Your task to perform on an android device: search for starred emails in the gmail app Image 0: 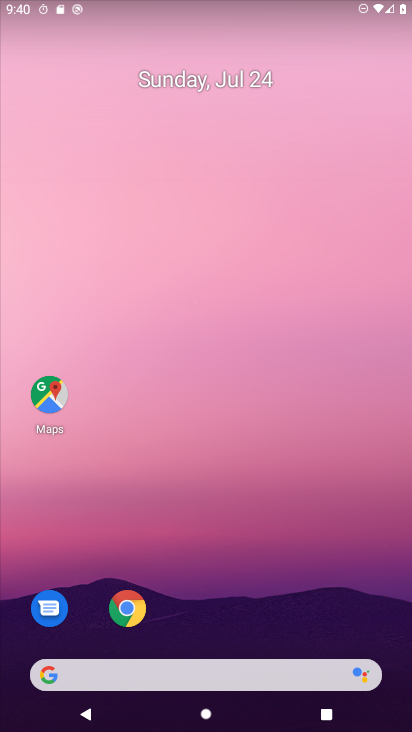
Step 0: click (193, 58)
Your task to perform on an android device: search for starred emails in the gmail app Image 1: 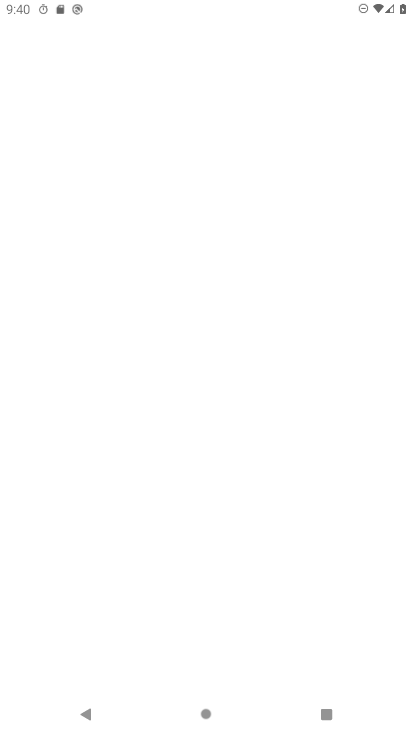
Step 1: press home button
Your task to perform on an android device: search for starred emails in the gmail app Image 2: 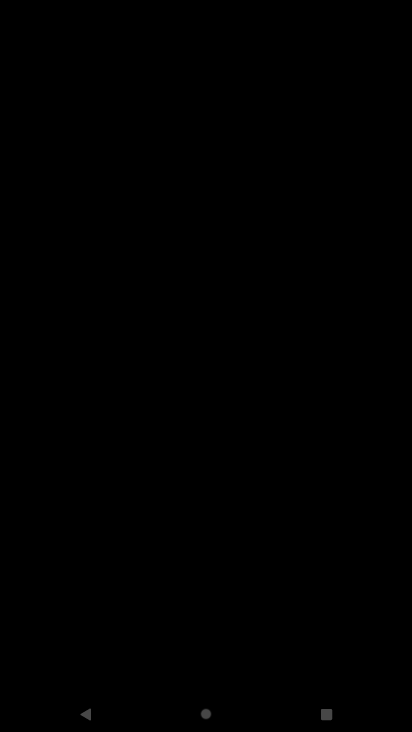
Step 2: press home button
Your task to perform on an android device: search for starred emails in the gmail app Image 3: 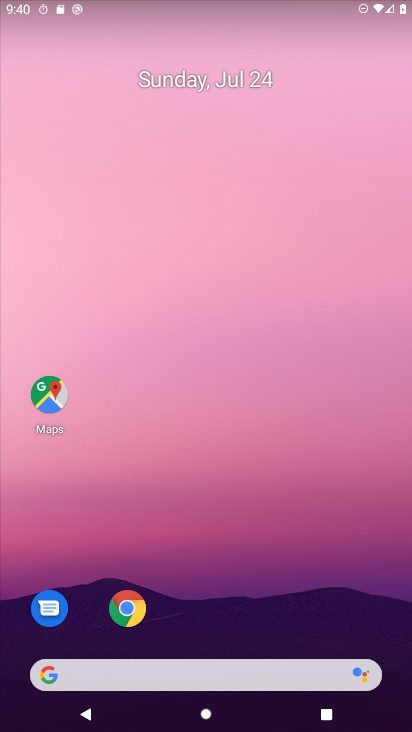
Step 3: drag from (193, 661) to (257, 34)
Your task to perform on an android device: search for starred emails in the gmail app Image 4: 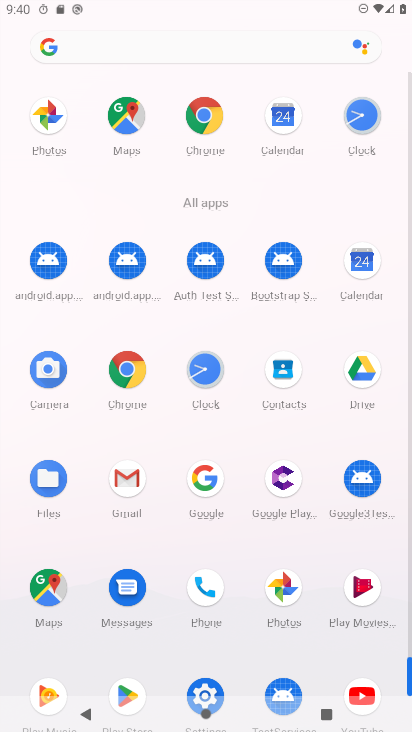
Step 4: click (123, 478)
Your task to perform on an android device: search for starred emails in the gmail app Image 5: 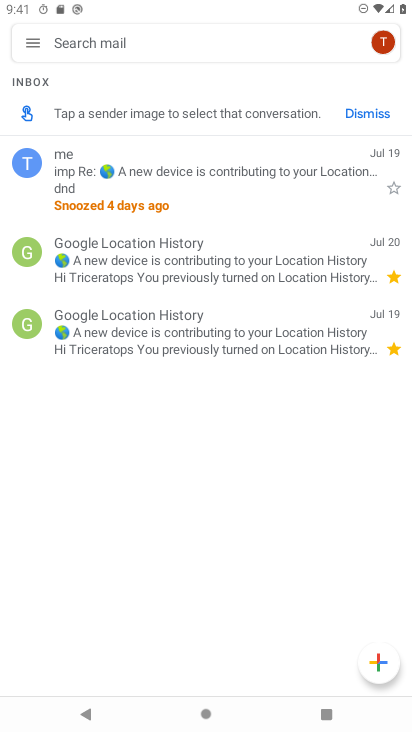
Step 5: drag from (254, 524) to (191, 111)
Your task to perform on an android device: search for starred emails in the gmail app Image 6: 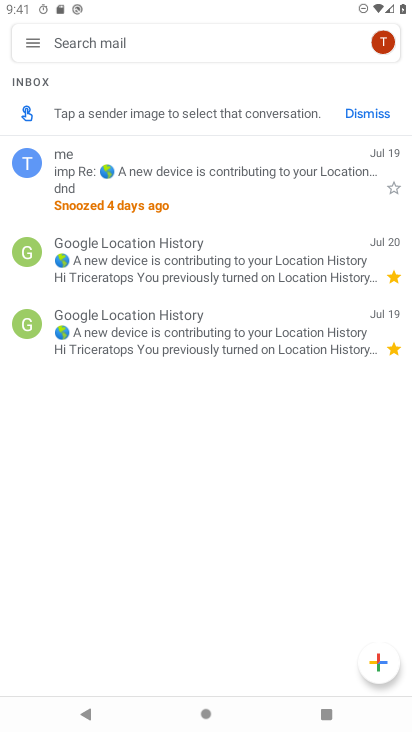
Step 6: drag from (184, 162) to (234, 560)
Your task to perform on an android device: search for starred emails in the gmail app Image 7: 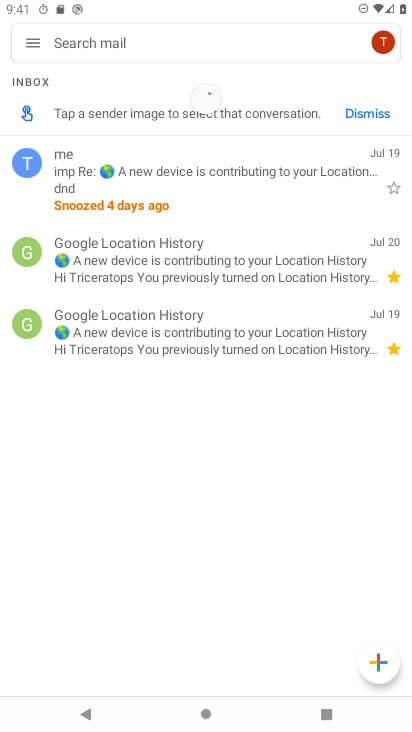
Step 7: drag from (211, 572) to (229, 348)
Your task to perform on an android device: search for starred emails in the gmail app Image 8: 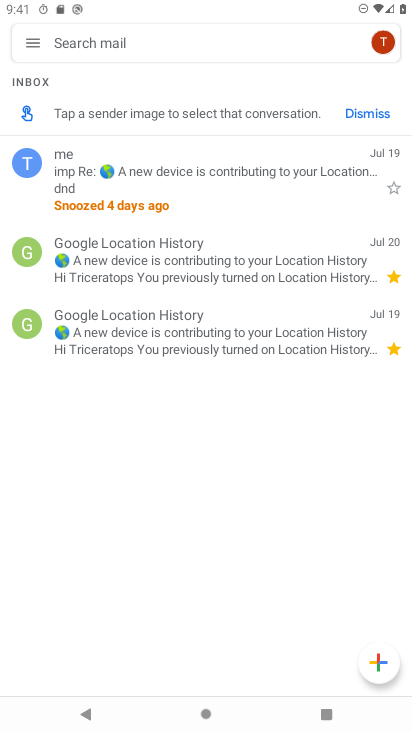
Step 8: click (29, 35)
Your task to perform on an android device: search for starred emails in the gmail app Image 9: 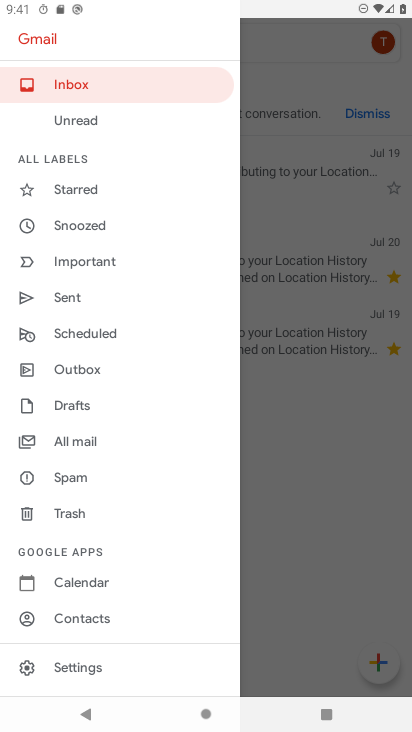
Step 9: click (70, 187)
Your task to perform on an android device: search for starred emails in the gmail app Image 10: 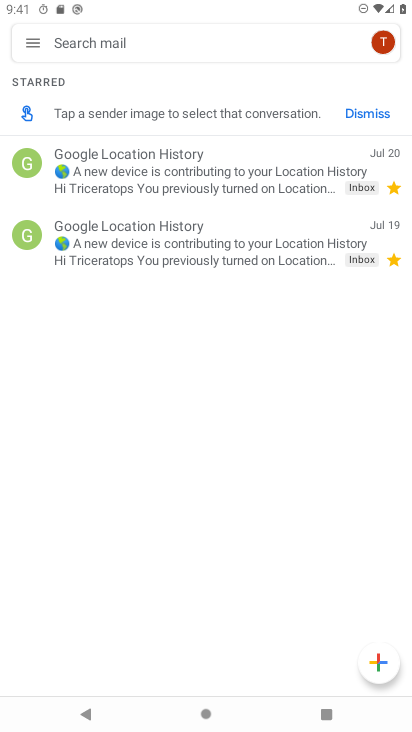
Step 10: task complete